Your task to perform on an android device: set an alarm Image 0: 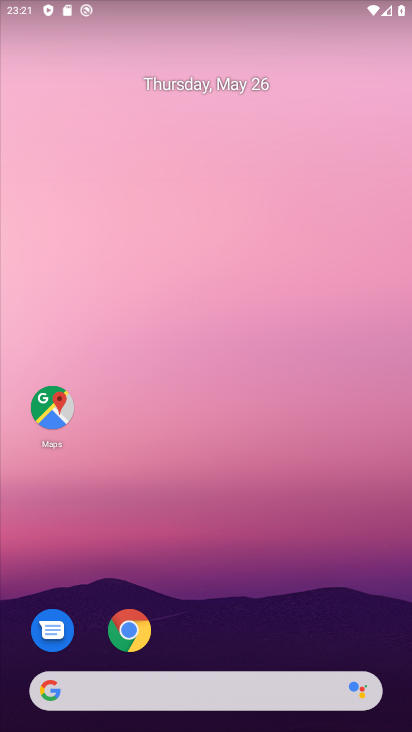
Step 0: drag from (269, 642) to (233, 159)
Your task to perform on an android device: set an alarm Image 1: 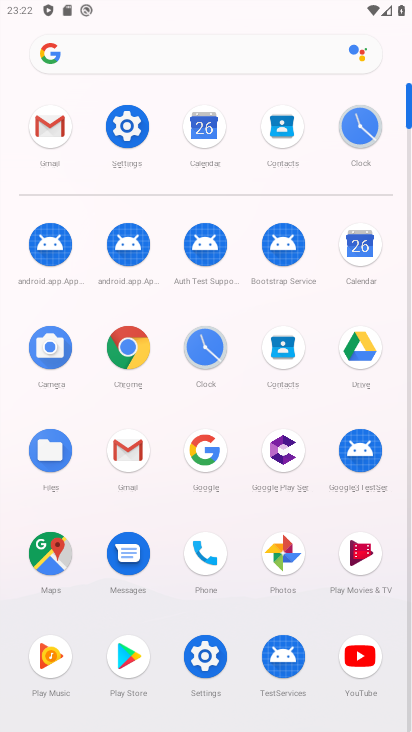
Step 1: click (361, 124)
Your task to perform on an android device: set an alarm Image 2: 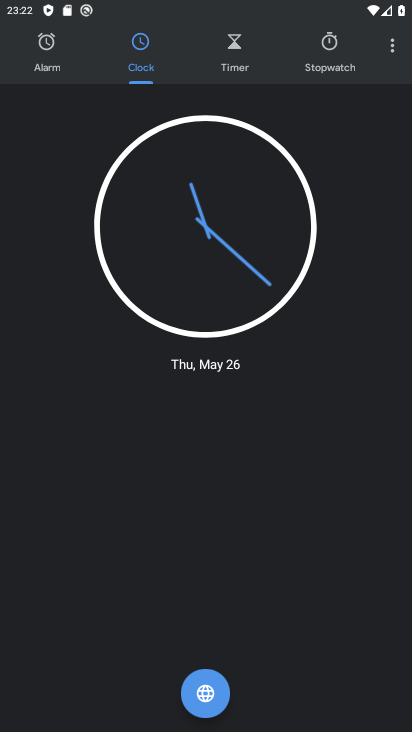
Step 2: click (47, 44)
Your task to perform on an android device: set an alarm Image 3: 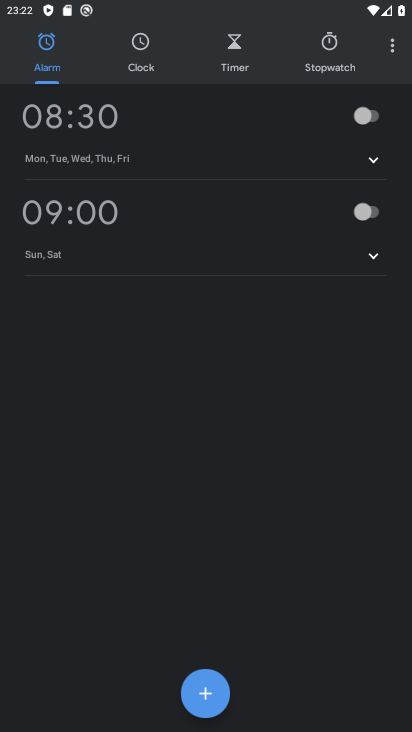
Step 3: click (203, 693)
Your task to perform on an android device: set an alarm Image 4: 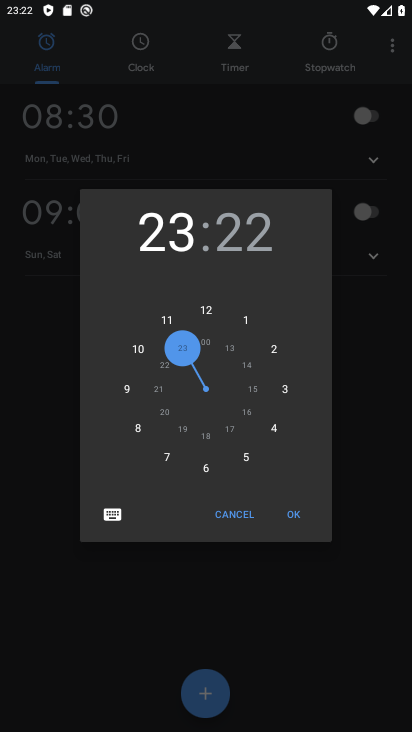
Step 4: click (251, 393)
Your task to perform on an android device: set an alarm Image 5: 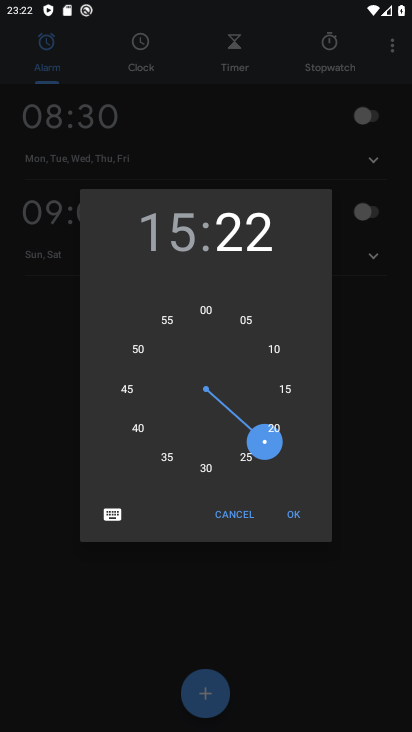
Step 5: click (292, 513)
Your task to perform on an android device: set an alarm Image 6: 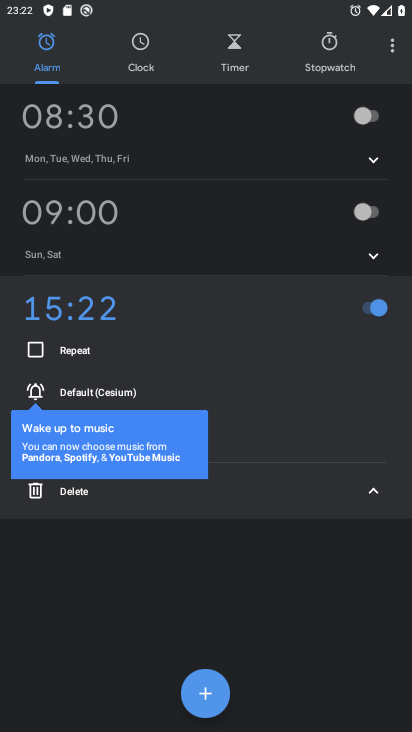
Step 6: click (373, 491)
Your task to perform on an android device: set an alarm Image 7: 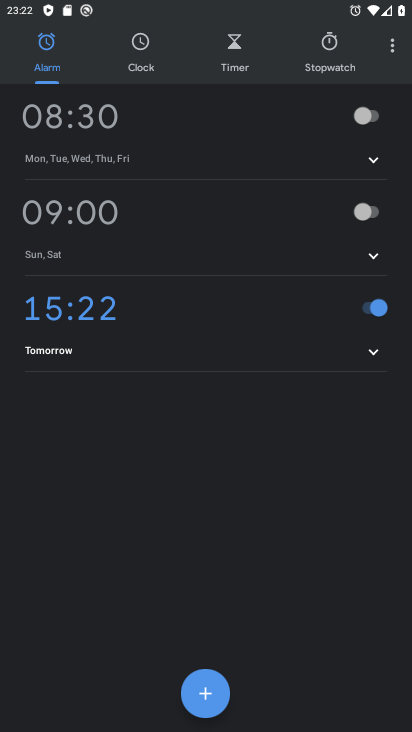
Step 7: task complete